Your task to perform on an android device: Go to privacy settings Image 0: 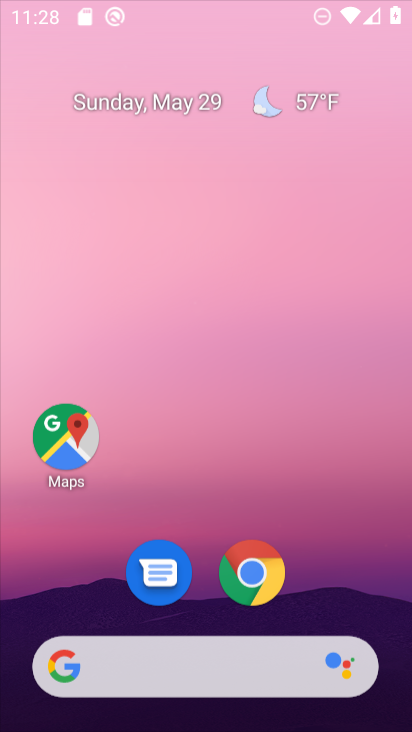
Step 0: click (368, 91)
Your task to perform on an android device: Go to privacy settings Image 1: 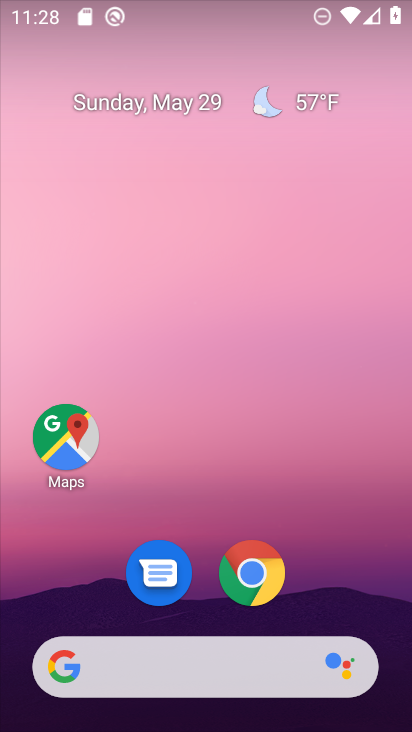
Step 1: drag from (294, 650) to (329, 64)
Your task to perform on an android device: Go to privacy settings Image 2: 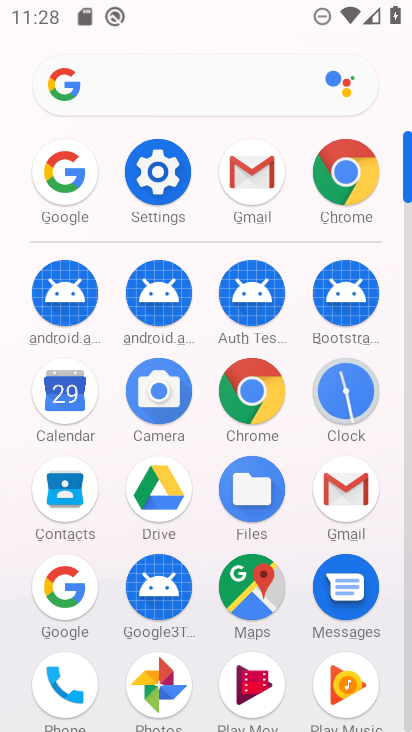
Step 2: click (183, 165)
Your task to perform on an android device: Go to privacy settings Image 3: 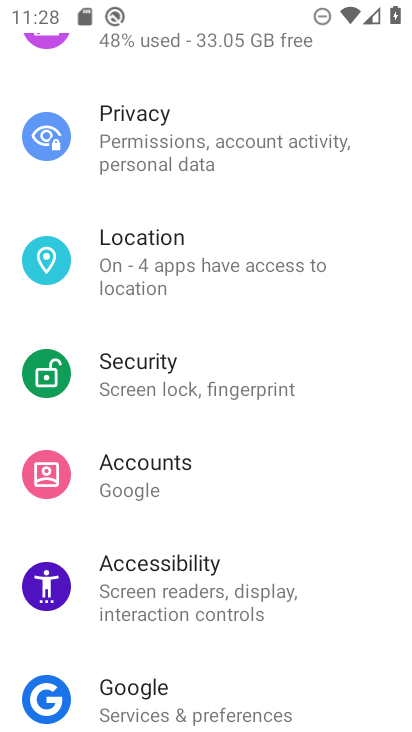
Step 3: click (204, 142)
Your task to perform on an android device: Go to privacy settings Image 4: 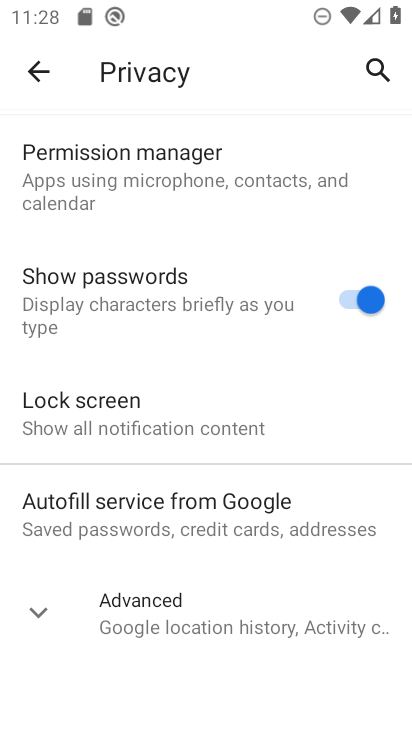
Step 4: task complete